Your task to perform on an android device: turn on location history Image 0: 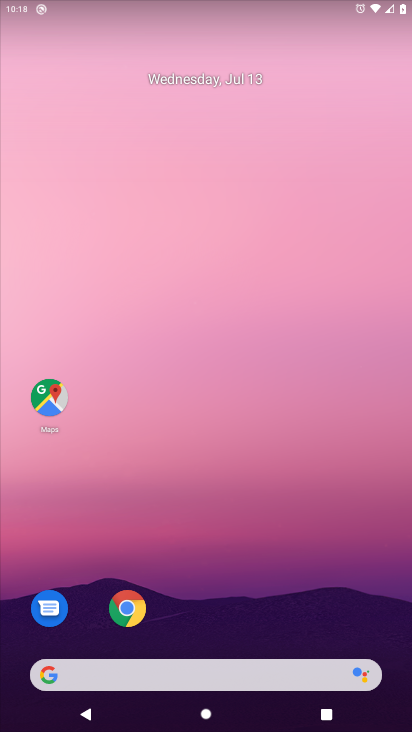
Step 0: drag from (28, 698) to (225, 69)
Your task to perform on an android device: turn on location history Image 1: 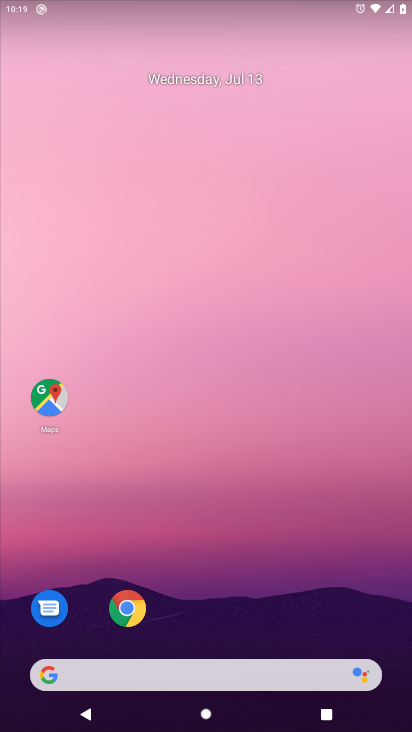
Step 1: drag from (25, 706) to (153, 180)
Your task to perform on an android device: turn on location history Image 2: 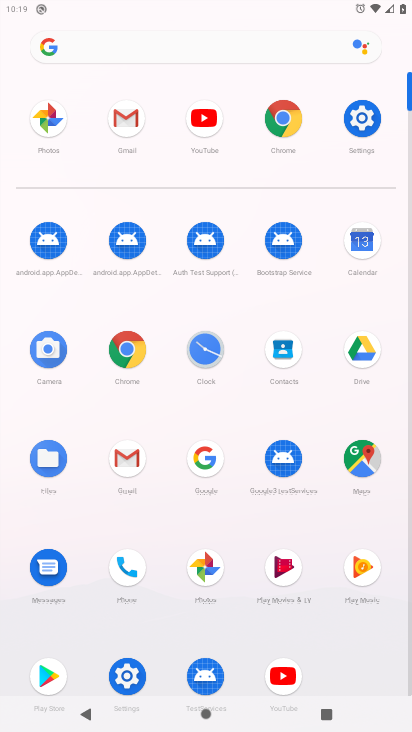
Step 2: click (136, 675)
Your task to perform on an android device: turn on location history Image 3: 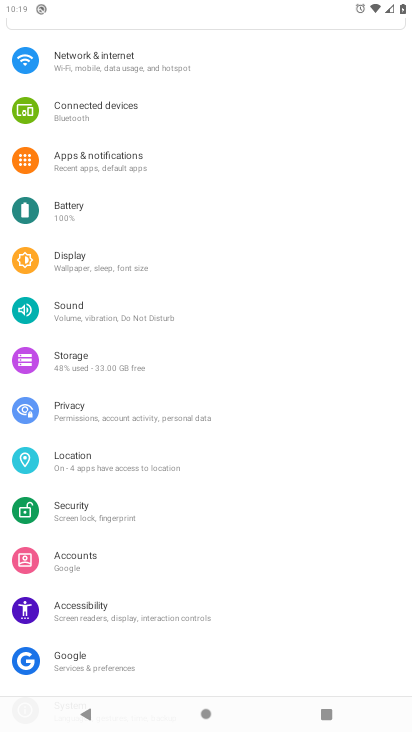
Step 3: click (114, 462)
Your task to perform on an android device: turn on location history Image 4: 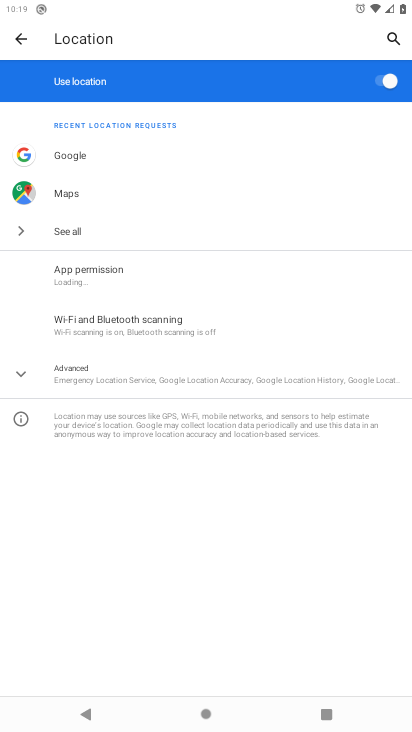
Step 4: click (96, 368)
Your task to perform on an android device: turn on location history Image 5: 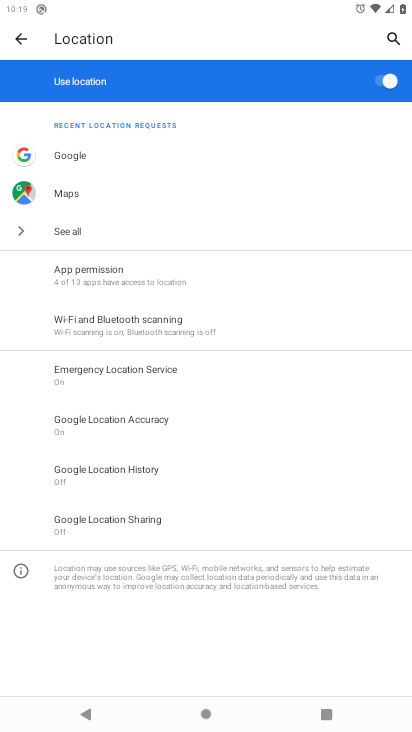
Step 5: click (96, 488)
Your task to perform on an android device: turn on location history Image 6: 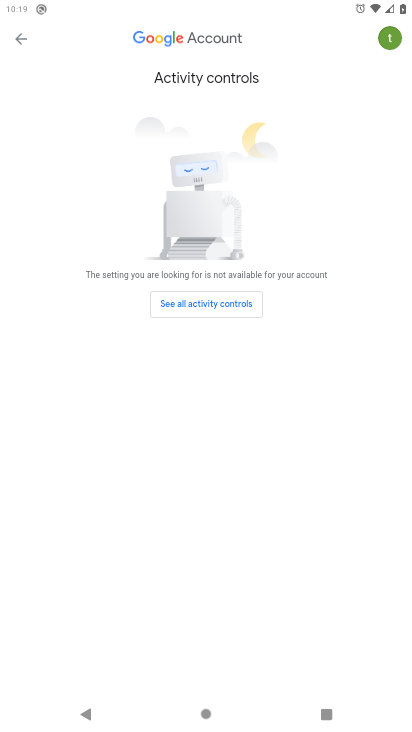
Step 6: click (216, 299)
Your task to perform on an android device: turn on location history Image 7: 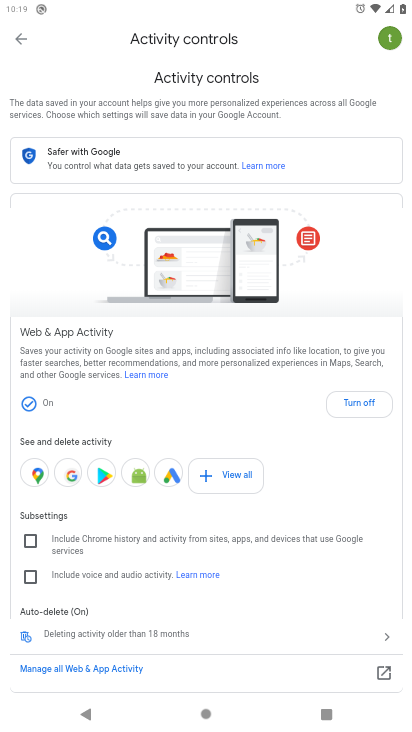
Step 7: click (362, 403)
Your task to perform on an android device: turn on location history Image 8: 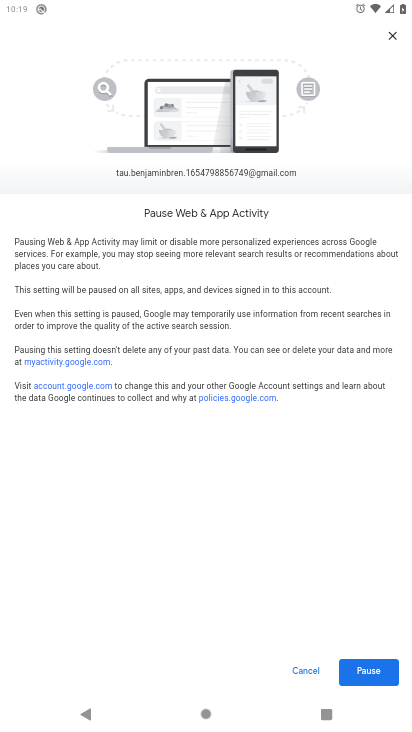
Step 8: click (372, 668)
Your task to perform on an android device: turn on location history Image 9: 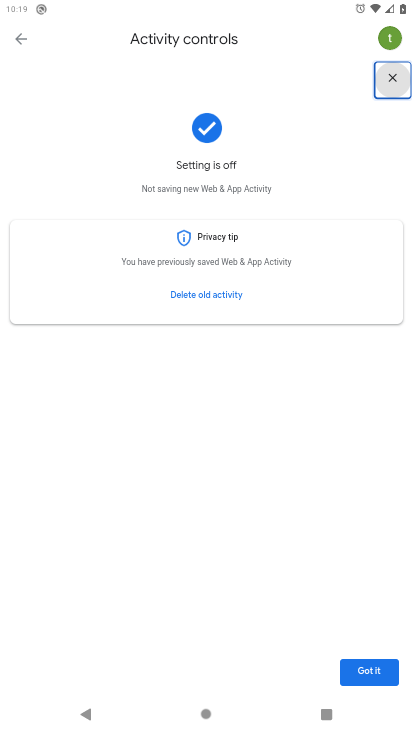
Step 9: click (358, 674)
Your task to perform on an android device: turn on location history Image 10: 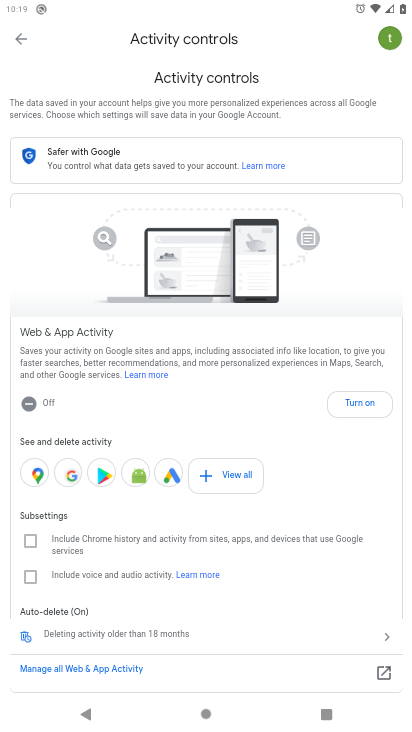
Step 10: task complete